Your task to perform on an android device: open app "File Manager" Image 0: 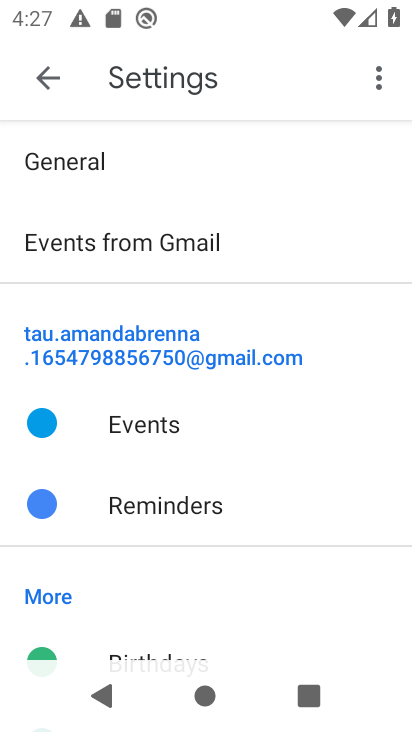
Step 0: press home button
Your task to perform on an android device: open app "File Manager" Image 1: 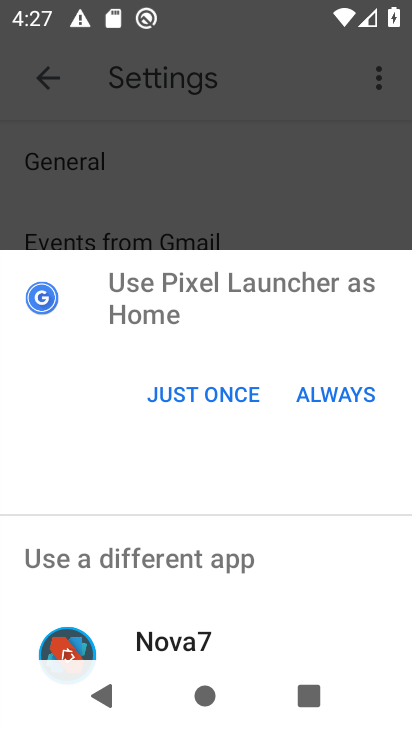
Step 1: press home button
Your task to perform on an android device: open app "File Manager" Image 2: 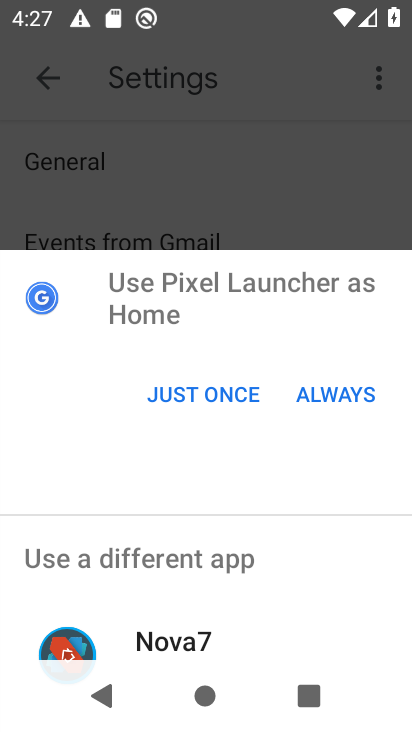
Step 2: press home button
Your task to perform on an android device: open app "File Manager" Image 3: 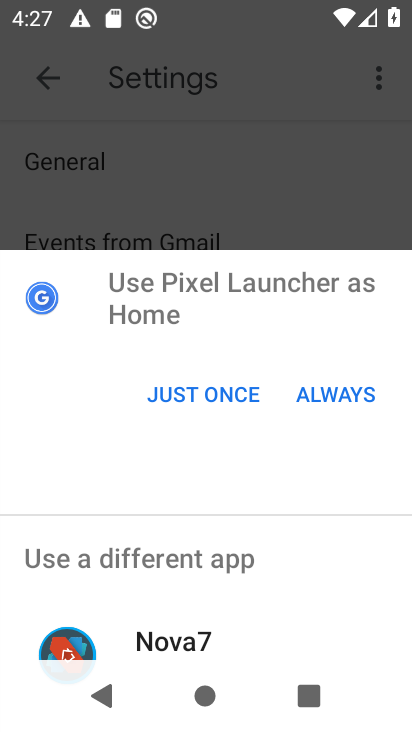
Step 3: press home button
Your task to perform on an android device: open app "File Manager" Image 4: 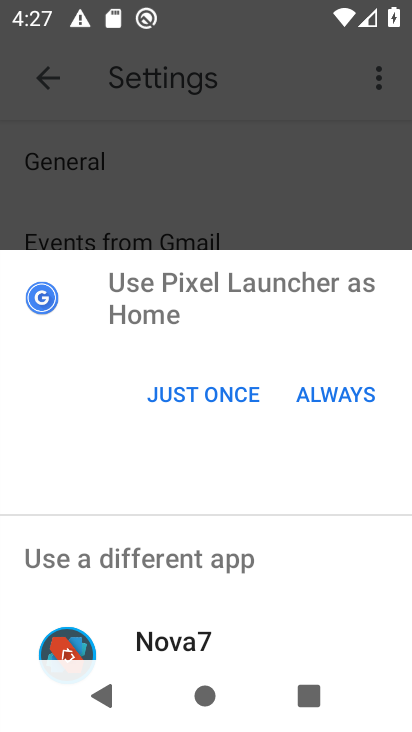
Step 4: press home button
Your task to perform on an android device: open app "File Manager" Image 5: 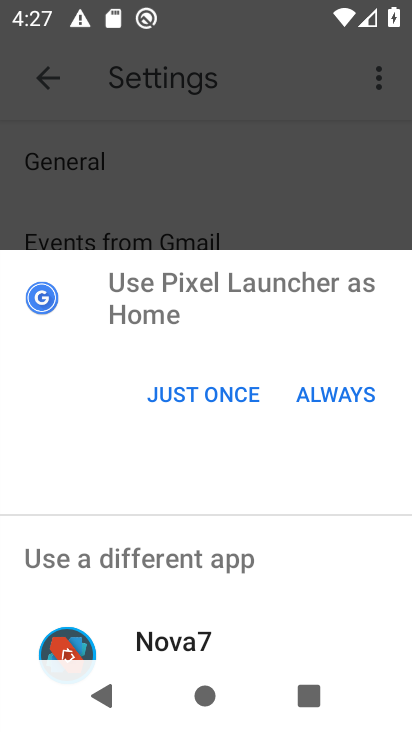
Step 5: click (207, 397)
Your task to perform on an android device: open app "File Manager" Image 6: 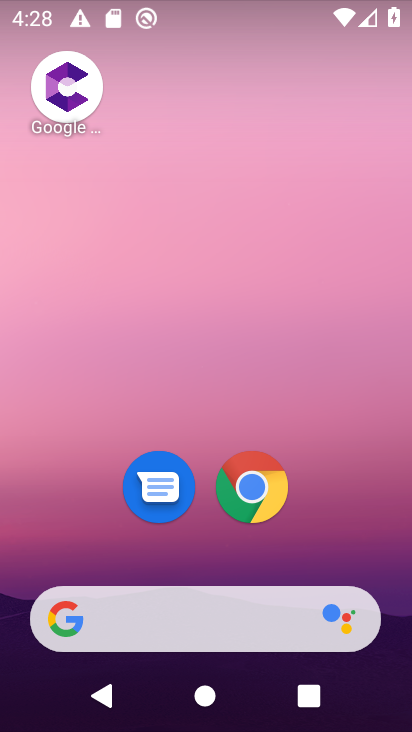
Step 6: drag from (196, 581) to (184, 56)
Your task to perform on an android device: open app "File Manager" Image 7: 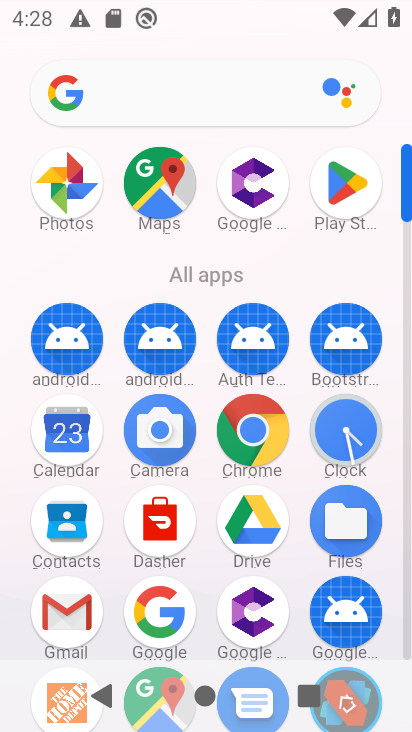
Step 7: click (342, 185)
Your task to perform on an android device: open app "File Manager" Image 8: 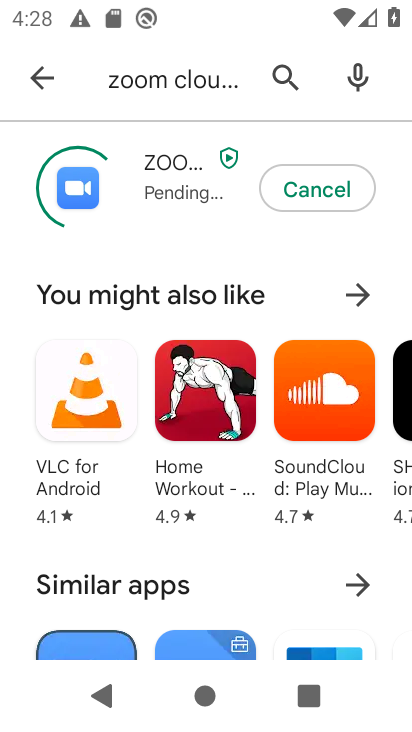
Step 8: click (288, 68)
Your task to perform on an android device: open app "File Manager" Image 9: 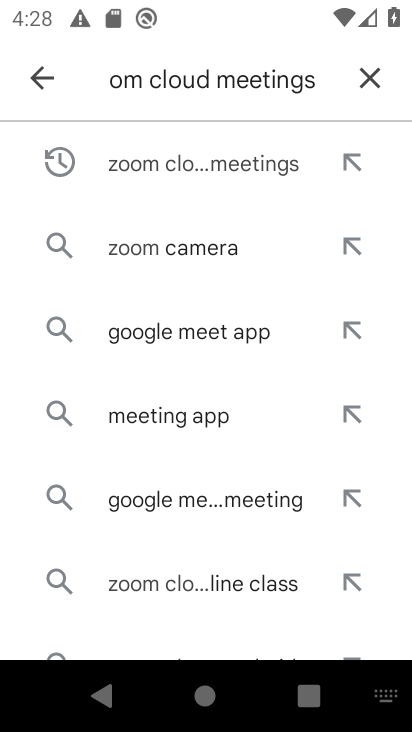
Step 9: click (366, 75)
Your task to perform on an android device: open app "File Manager" Image 10: 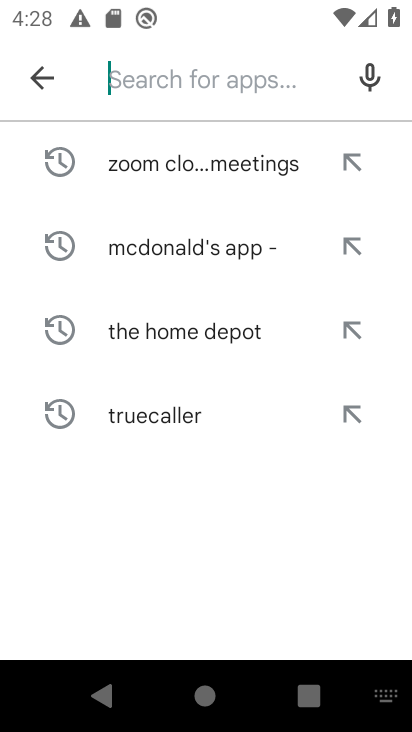
Step 10: type "File Manager"
Your task to perform on an android device: open app "File Manager" Image 11: 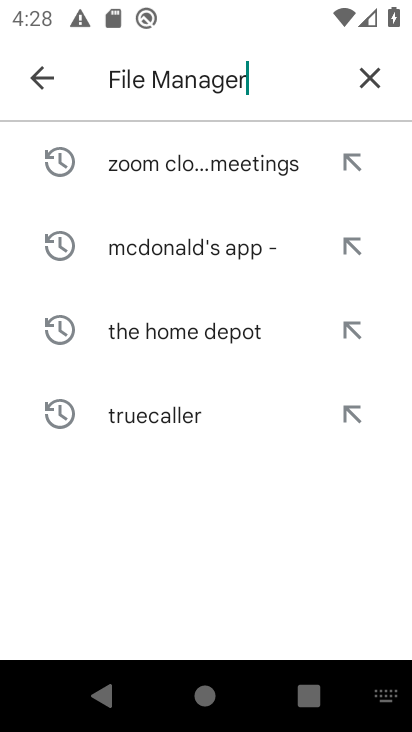
Step 11: type ""
Your task to perform on an android device: open app "File Manager" Image 12: 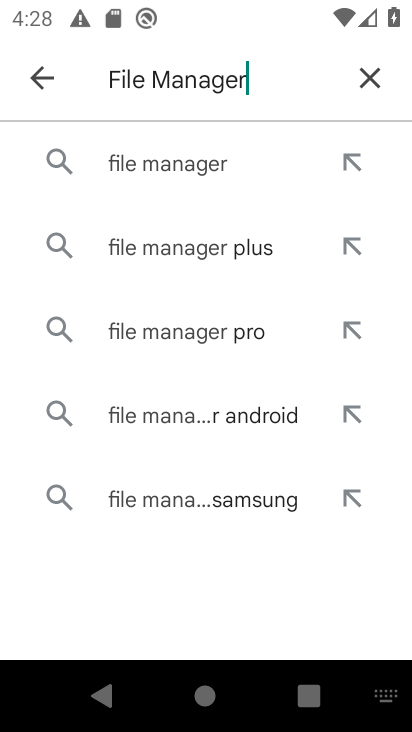
Step 12: click (200, 161)
Your task to perform on an android device: open app "File Manager" Image 13: 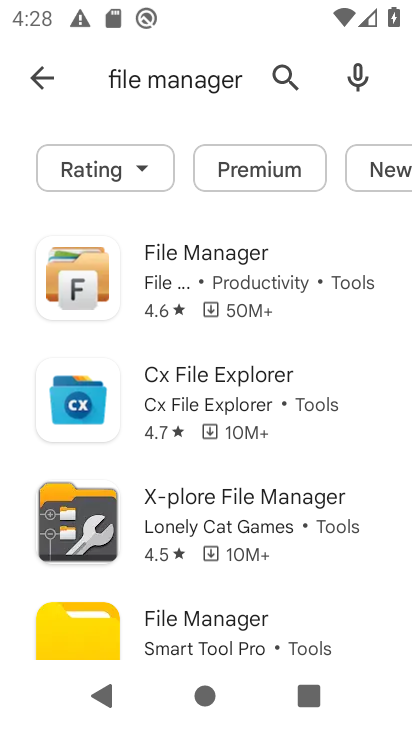
Step 13: click (206, 247)
Your task to perform on an android device: open app "File Manager" Image 14: 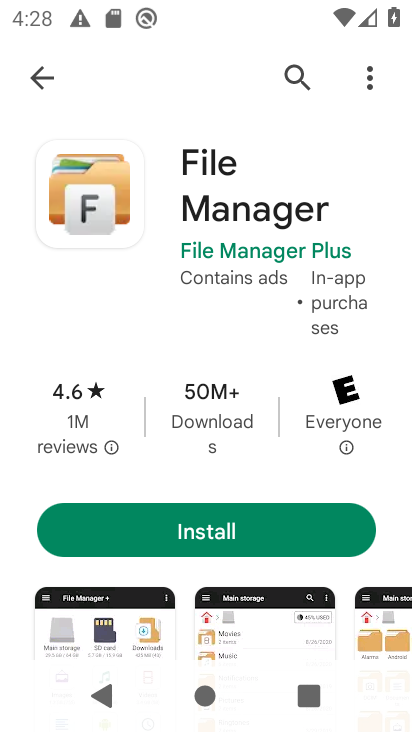
Step 14: task complete